Your task to perform on an android device: toggle translation in the chrome app Image 0: 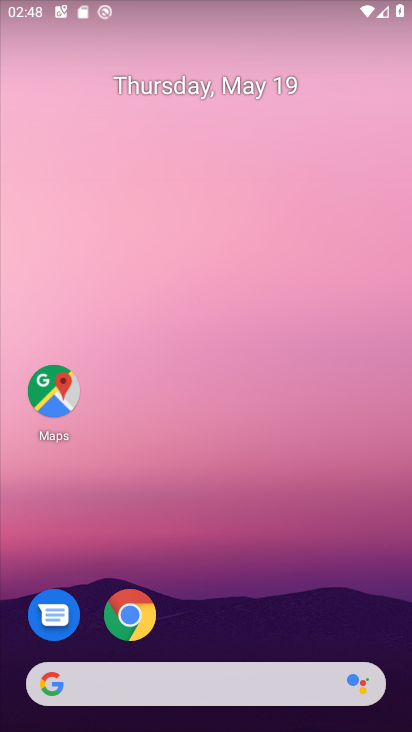
Step 0: drag from (286, 565) to (249, 6)
Your task to perform on an android device: toggle translation in the chrome app Image 1: 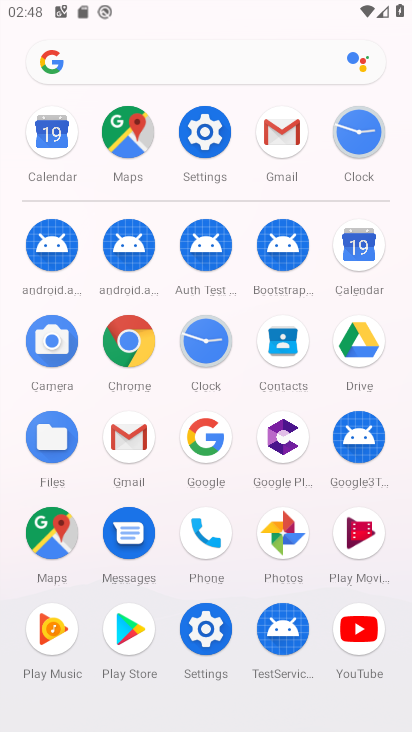
Step 1: drag from (11, 541) to (8, 244)
Your task to perform on an android device: toggle translation in the chrome app Image 2: 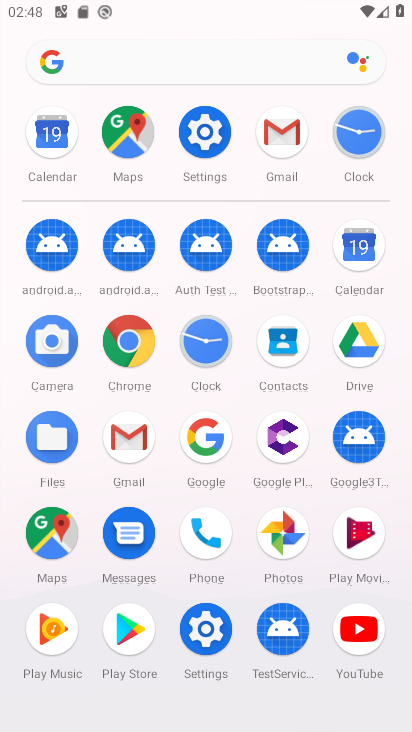
Step 2: click (123, 335)
Your task to perform on an android device: toggle translation in the chrome app Image 3: 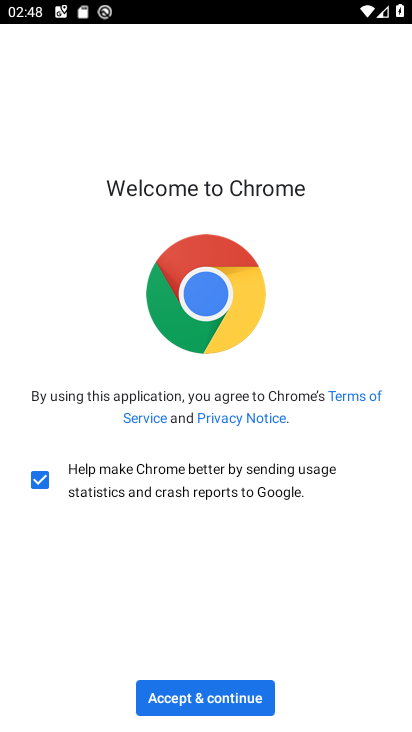
Step 3: click (216, 698)
Your task to perform on an android device: toggle translation in the chrome app Image 4: 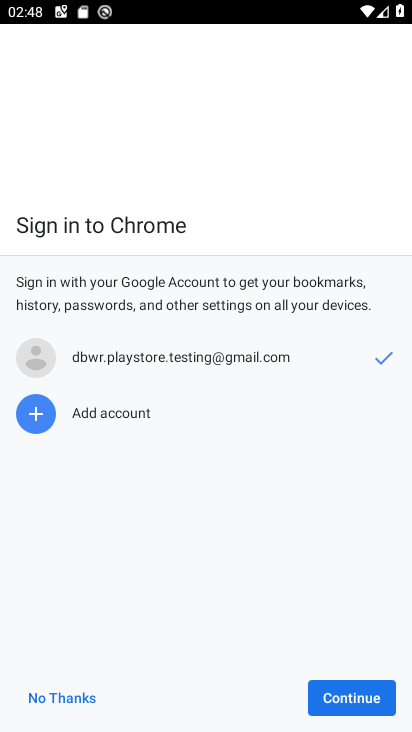
Step 4: click (335, 695)
Your task to perform on an android device: toggle translation in the chrome app Image 5: 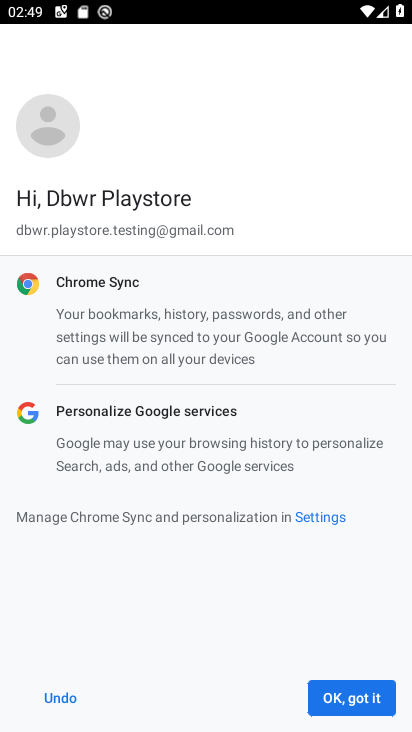
Step 5: click (345, 689)
Your task to perform on an android device: toggle translation in the chrome app Image 6: 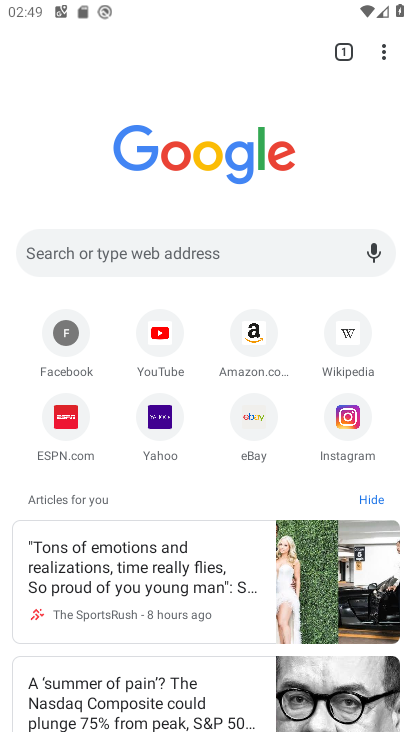
Step 6: drag from (377, 52) to (199, 428)
Your task to perform on an android device: toggle translation in the chrome app Image 7: 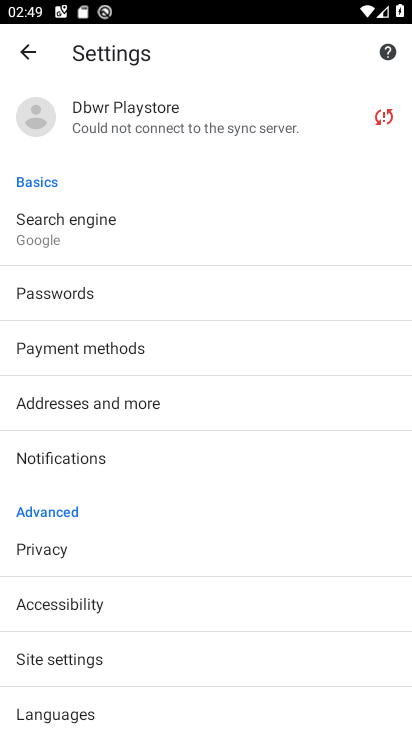
Step 7: drag from (221, 624) to (243, 316)
Your task to perform on an android device: toggle translation in the chrome app Image 8: 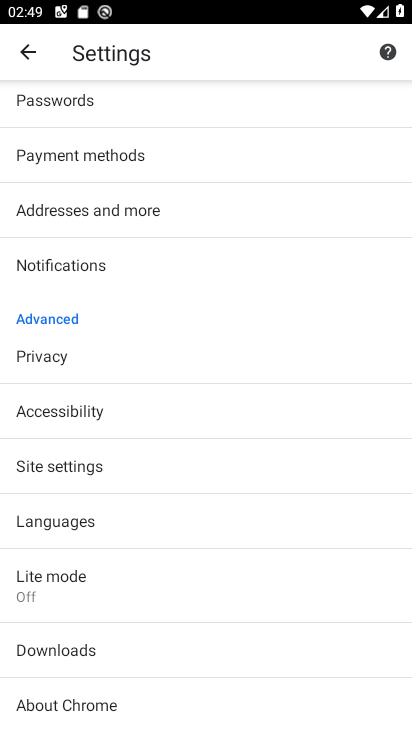
Step 8: click (111, 518)
Your task to perform on an android device: toggle translation in the chrome app Image 9: 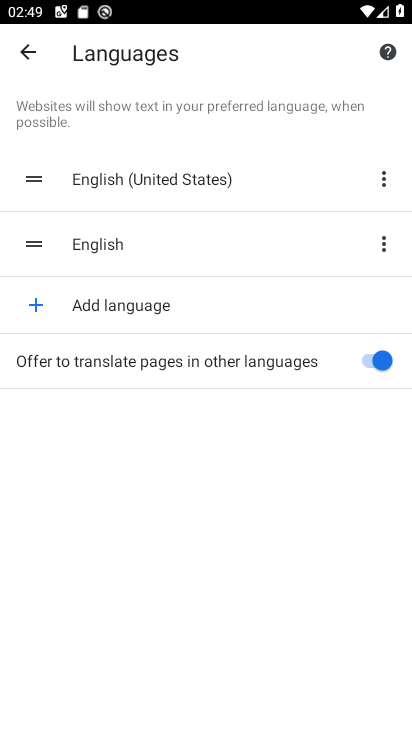
Step 9: click (374, 353)
Your task to perform on an android device: toggle translation in the chrome app Image 10: 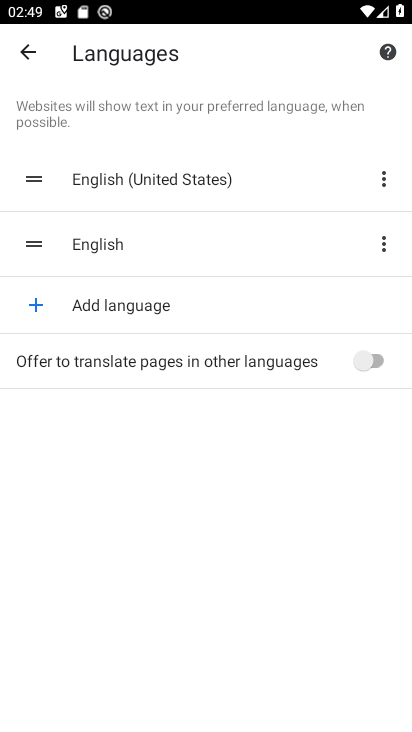
Step 10: task complete